Your task to perform on an android device: Do I have any events today? Image 0: 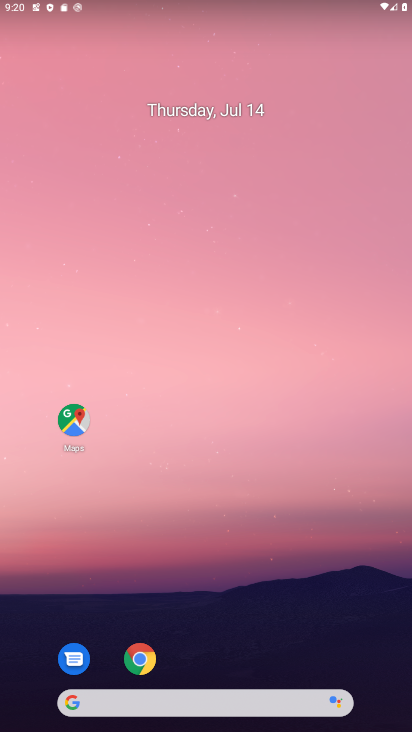
Step 0: drag from (309, 712) to (308, 10)
Your task to perform on an android device: Do I have any events today? Image 1: 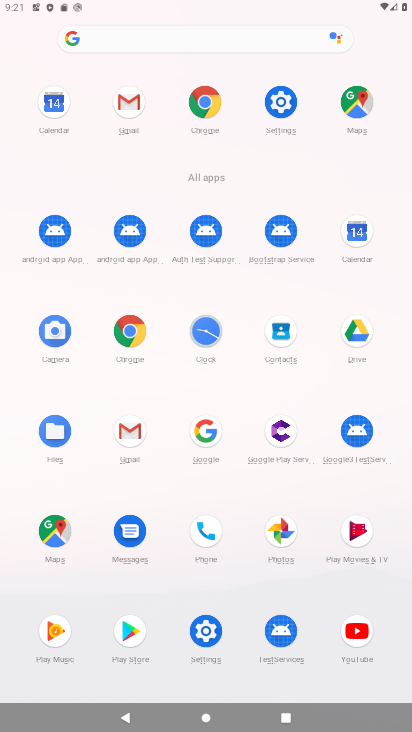
Step 1: click (359, 227)
Your task to perform on an android device: Do I have any events today? Image 2: 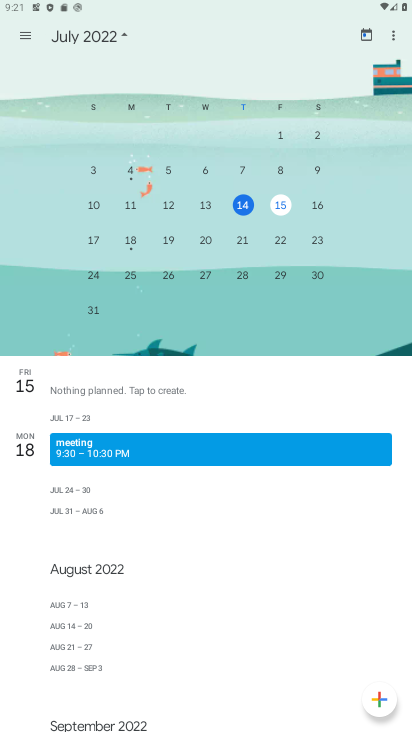
Step 2: click (284, 205)
Your task to perform on an android device: Do I have any events today? Image 3: 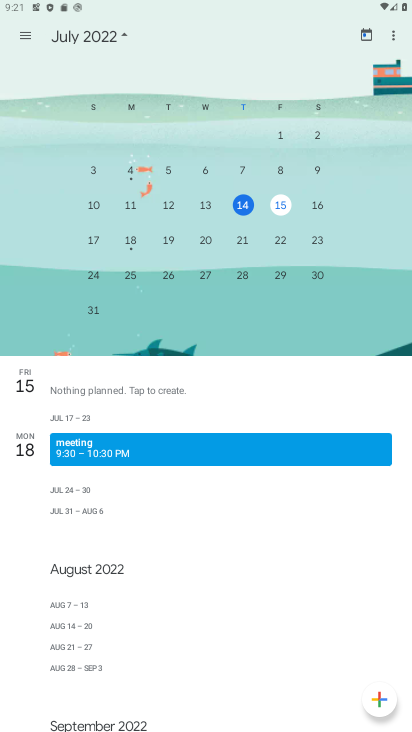
Step 3: task complete